Your task to perform on an android device: What is the recent news? Image 0: 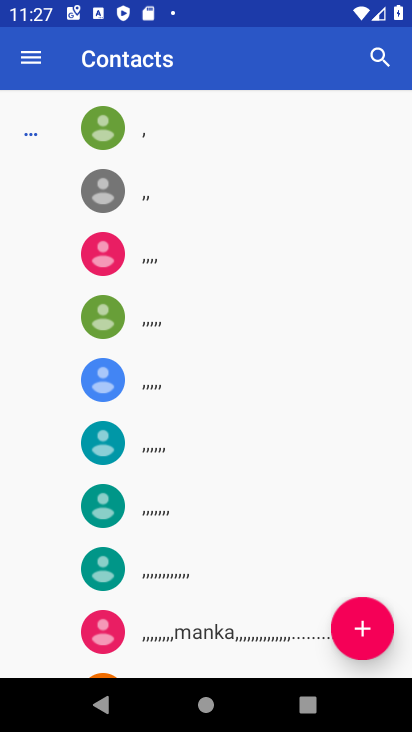
Step 0: press home button
Your task to perform on an android device: What is the recent news? Image 1: 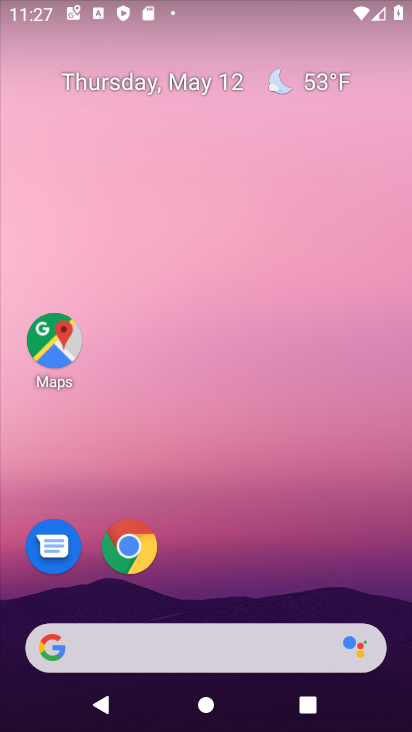
Step 1: drag from (286, 687) to (290, 149)
Your task to perform on an android device: What is the recent news? Image 2: 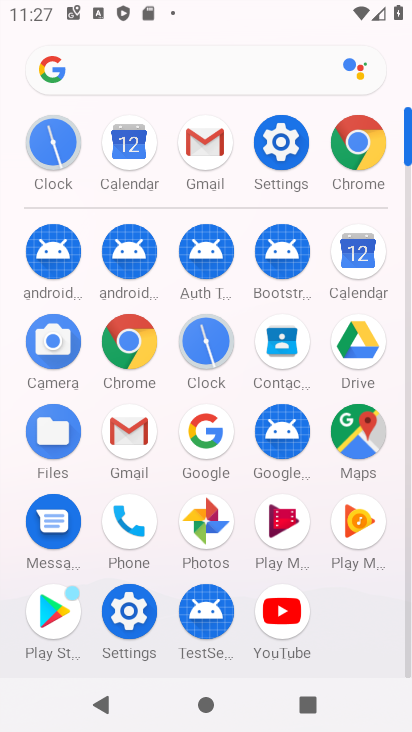
Step 2: click (170, 70)
Your task to perform on an android device: What is the recent news? Image 3: 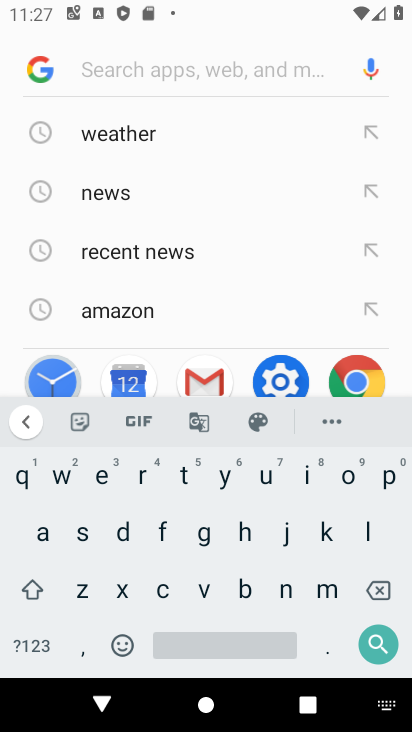
Step 3: click (118, 248)
Your task to perform on an android device: What is the recent news? Image 4: 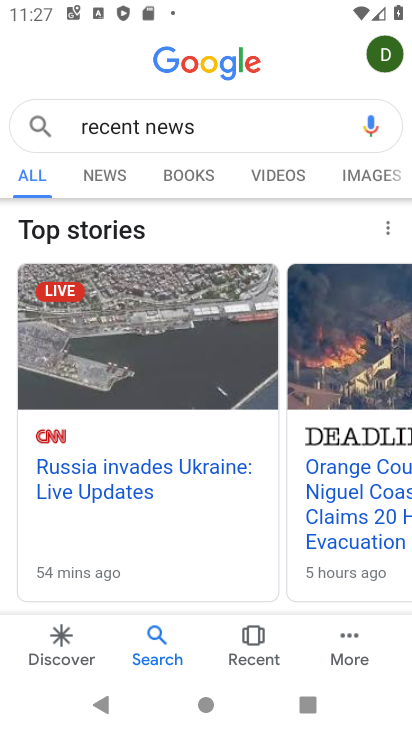
Step 4: task complete